Your task to perform on an android device: move an email to a new category in the gmail app Image 0: 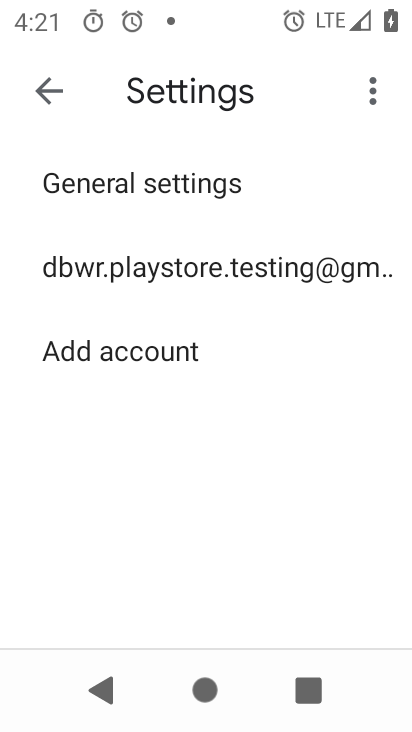
Step 0: click (50, 92)
Your task to perform on an android device: move an email to a new category in the gmail app Image 1: 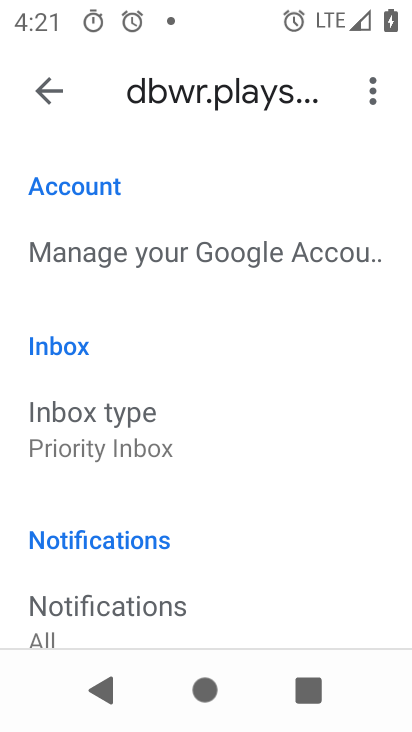
Step 1: click (57, 91)
Your task to perform on an android device: move an email to a new category in the gmail app Image 2: 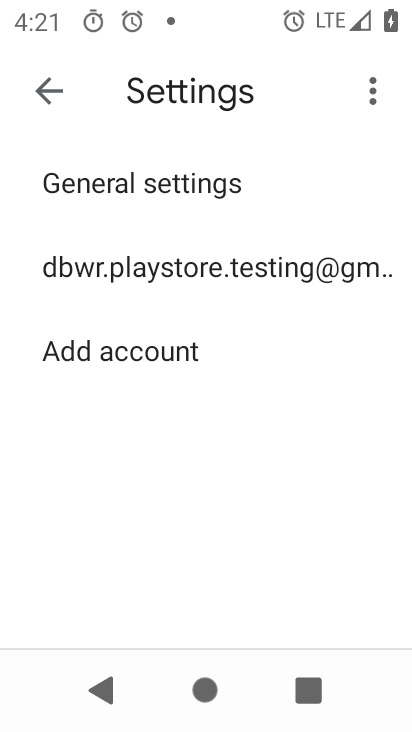
Step 2: click (44, 91)
Your task to perform on an android device: move an email to a new category in the gmail app Image 3: 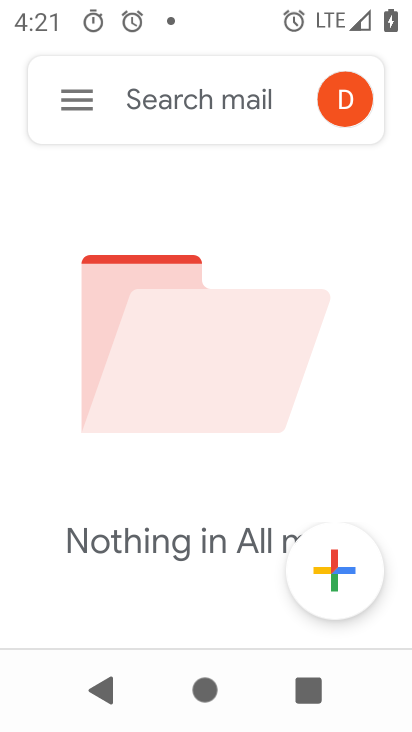
Step 3: click (72, 101)
Your task to perform on an android device: move an email to a new category in the gmail app Image 4: 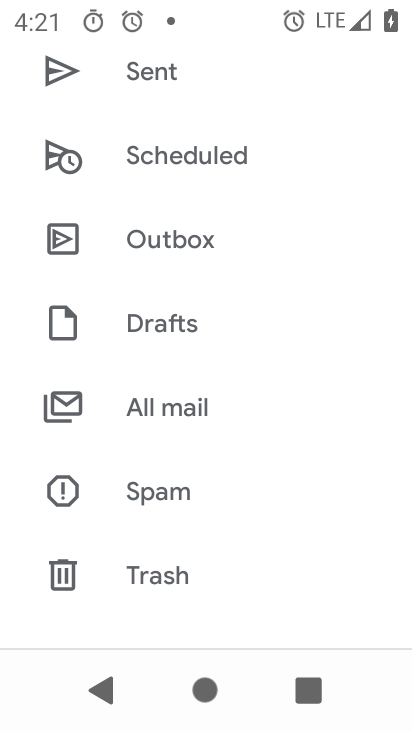
Step 4: click (120, 409)
Your task to perform on an android device: move an email to a new category in the gmail app Image 5: 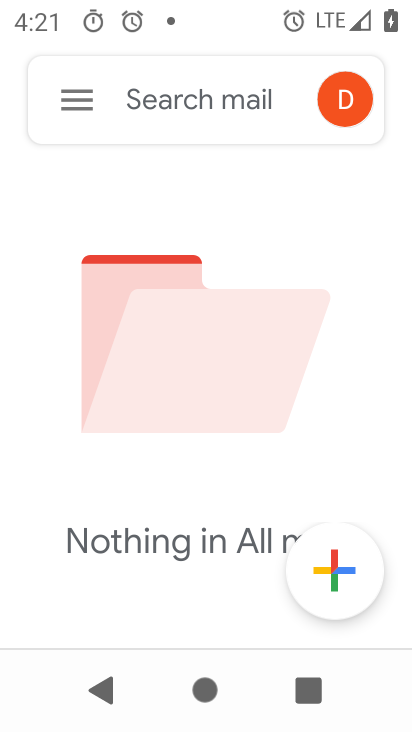
Step 5: task complete